Your task to perform on an android device: uninstall "PlayWell" Image 0: 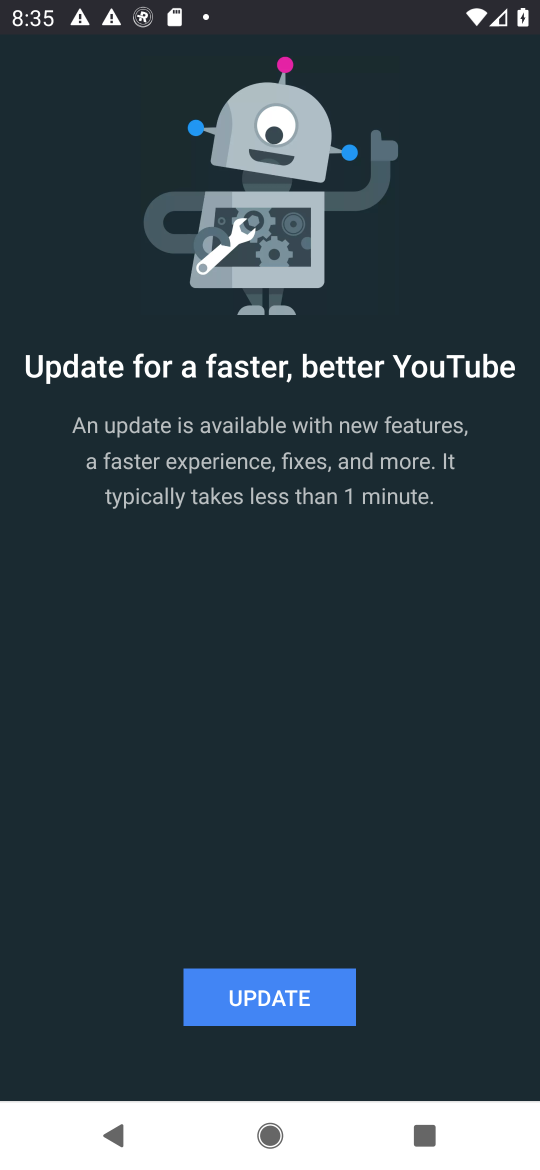
Step 0: press home button
Your task to perform on an android device: uninstall "PlayWell" Image 1: 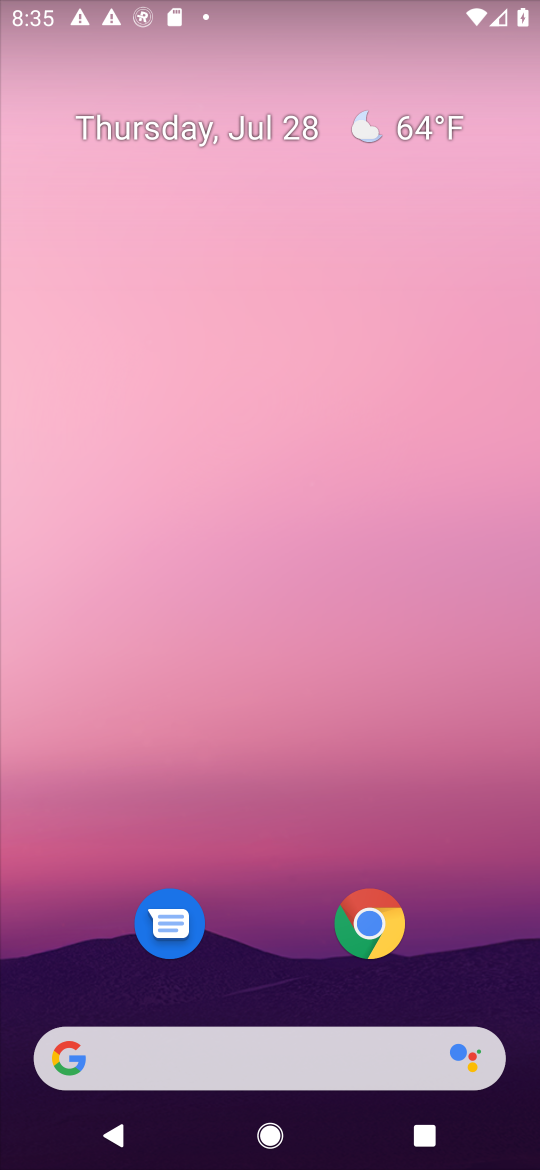
Step 1: drag from (446, 880) to (390, 203)
Your task to perform on an android device: uninstall "PlayWell" Image 2: 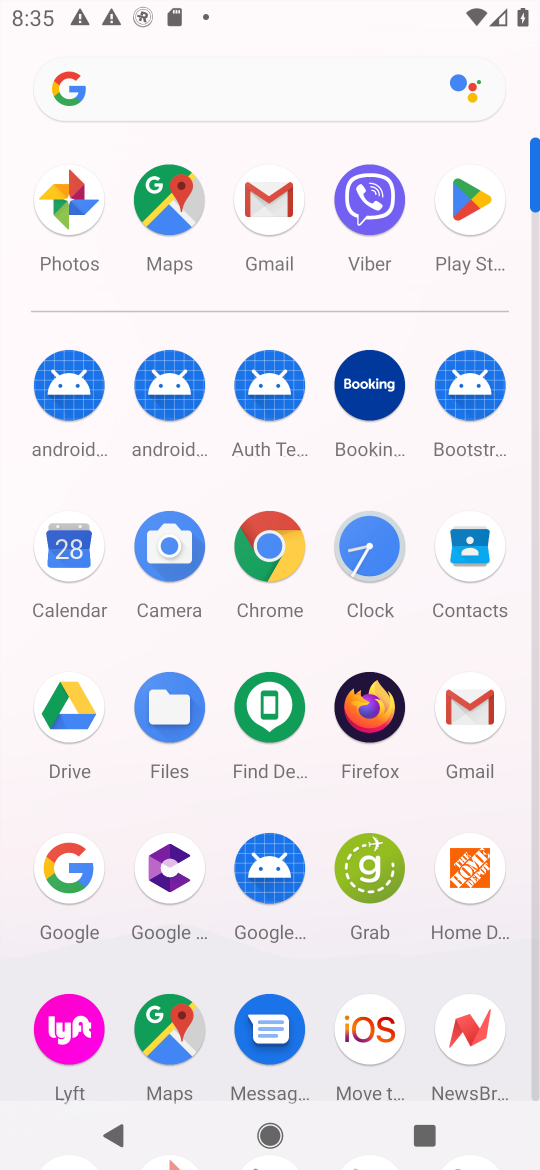
Step 2: click (476, 207)
Your task to perform on an android device: uninstall "PlayWell" Image 3: 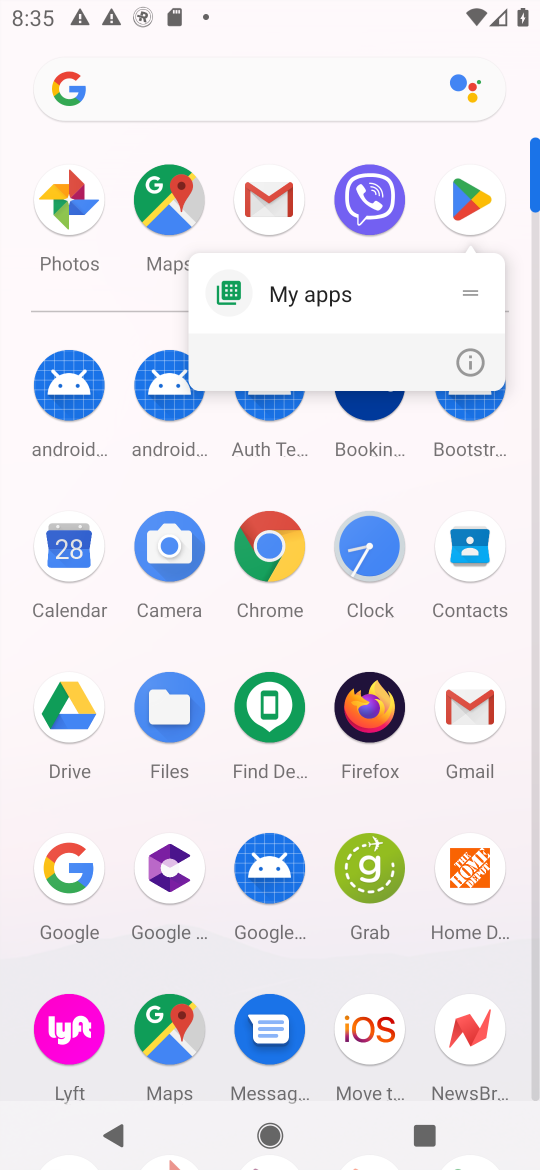
Step 3: click (476, 210)
Your task to perform on an android device: uninstall "PlayWell" Image 4: 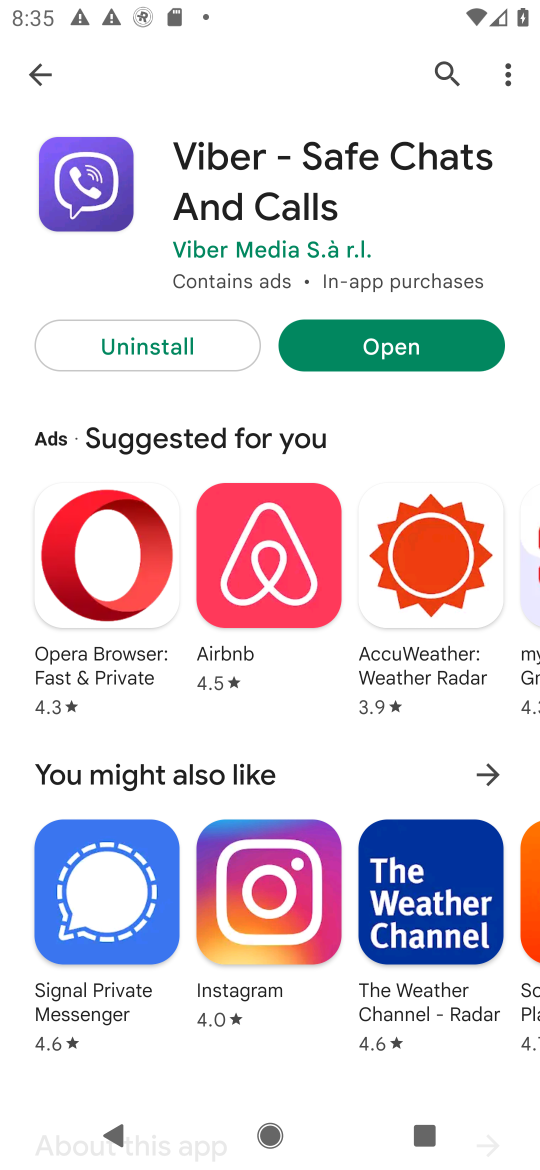
Step 4: click (464, 72)
Your task to perform on an android device: uninstall "PlayWell" Image 5: 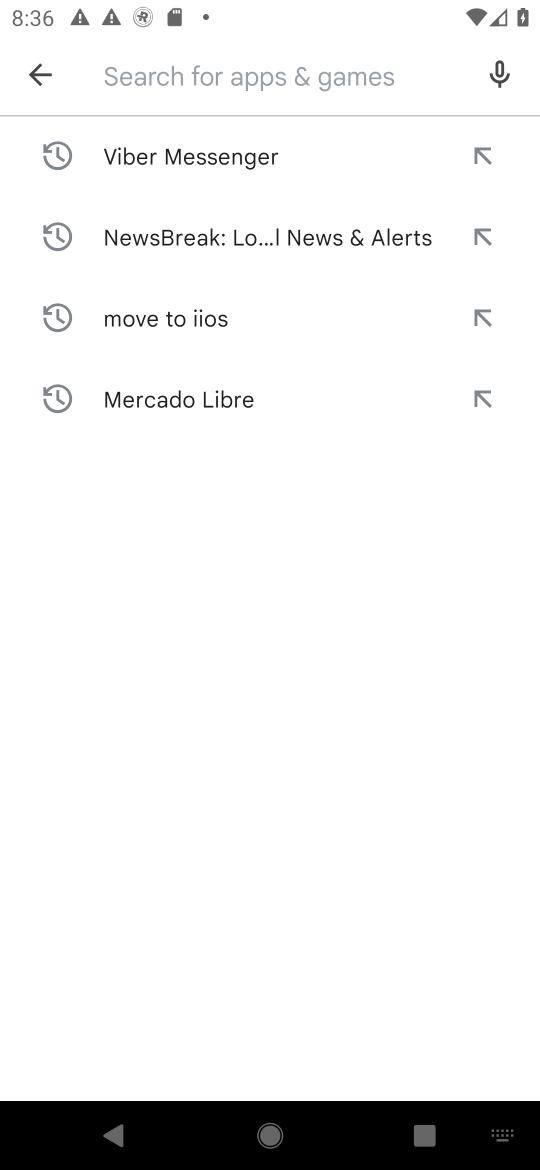
Step 5: type "PlayWell"
Your task to perform on an android device: uninstall "PlayWell" Image 6: 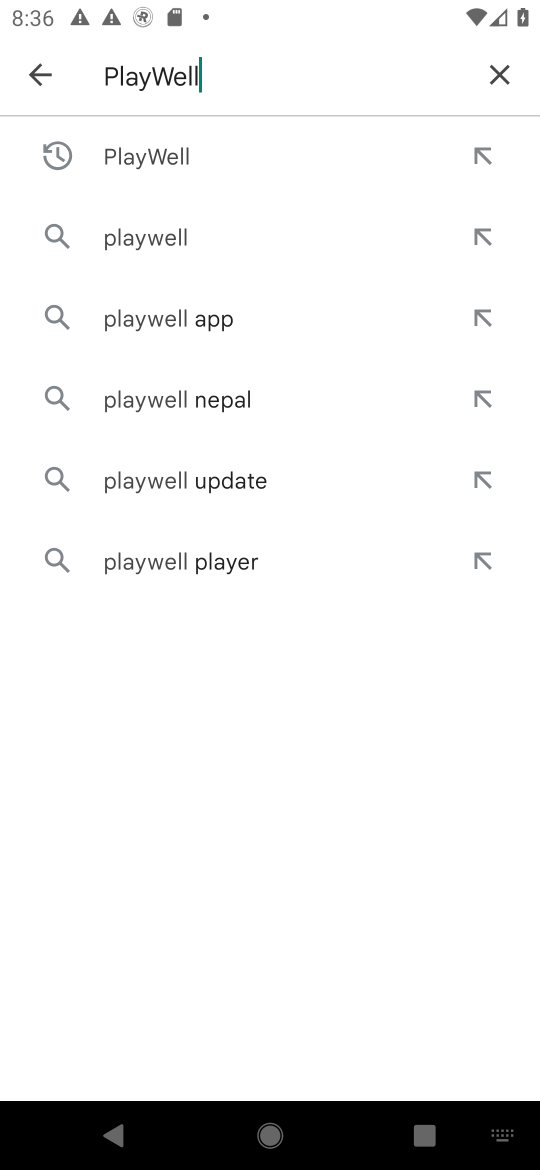
Step 6: press enter
Your task to perform on an android device: uninstall "PlayWell" Image 7: 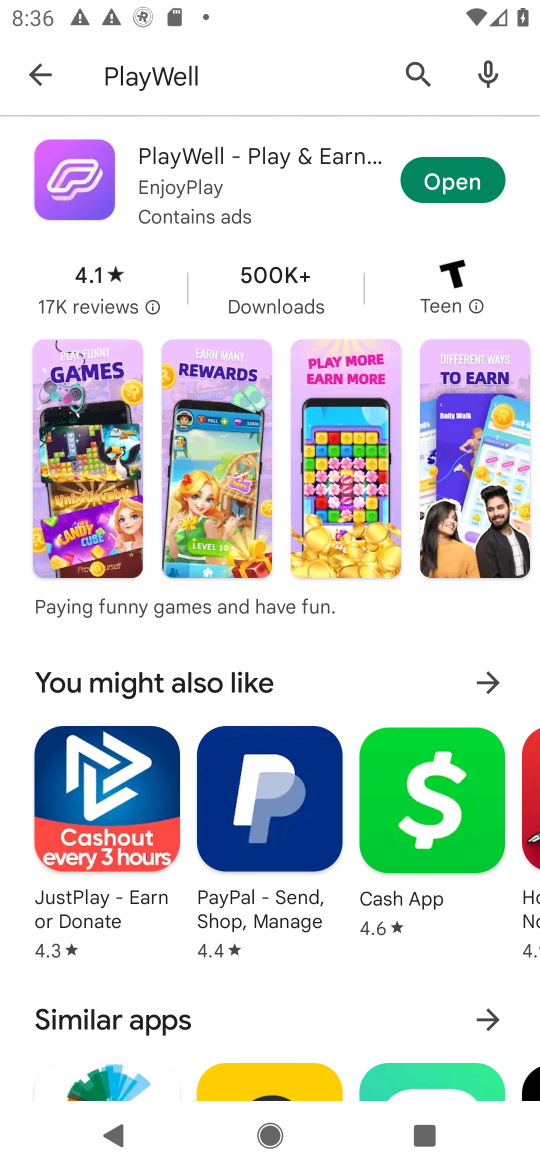
Step 7: click (245, 188)
Your task to perform on an android device: uninstall "PlayWell" Image 8: 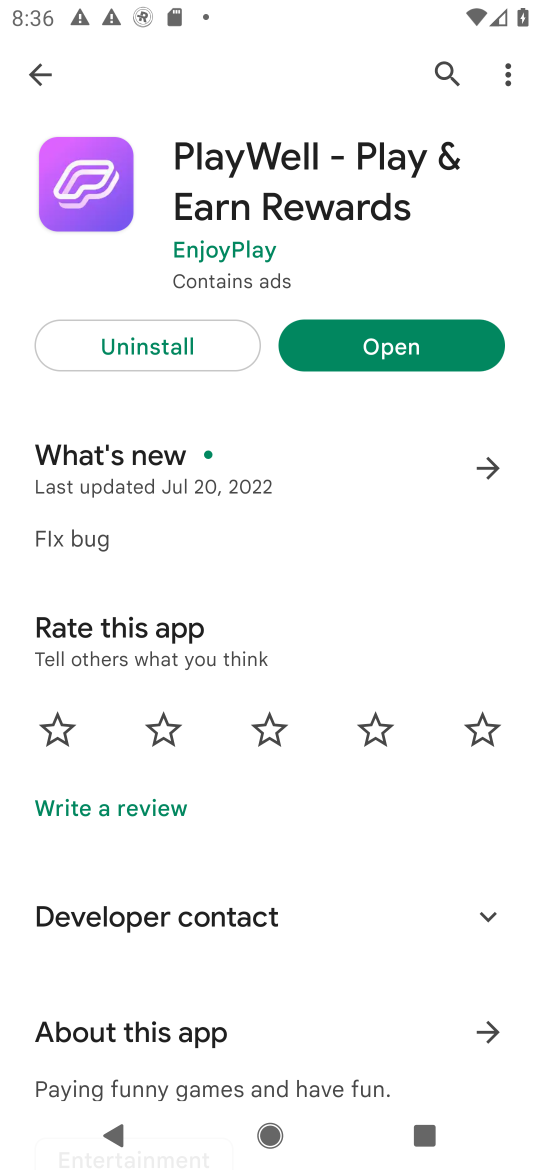
Step 8: click (135, 355)
Your task to perform on an android device: uninstall "PlayWell" Image 9: 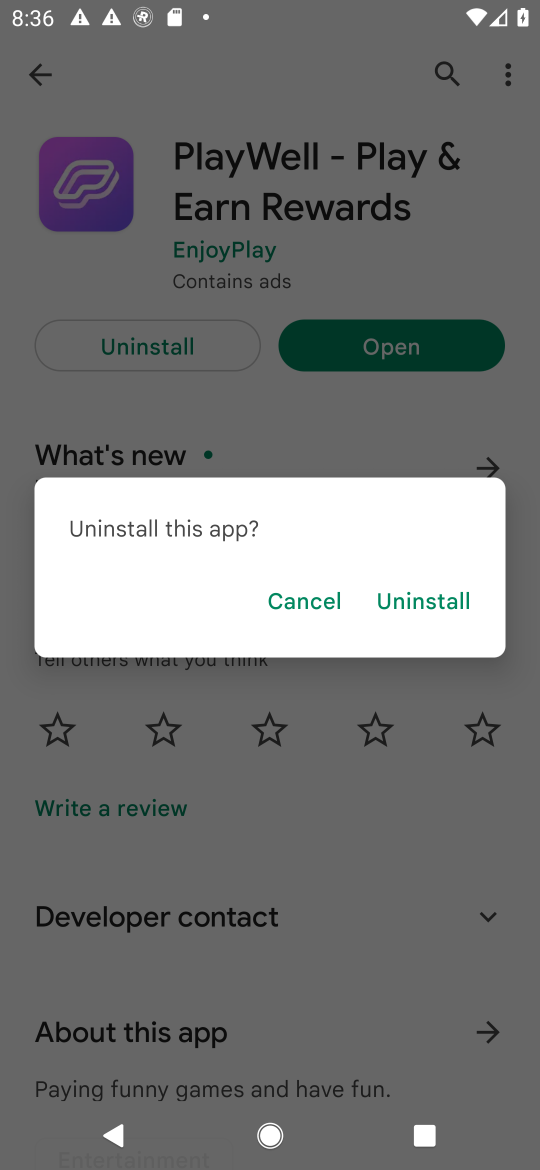
Step 9: click (458, 596)
Your task to perform on an android device: uninstall "PlayWell" Image 10: 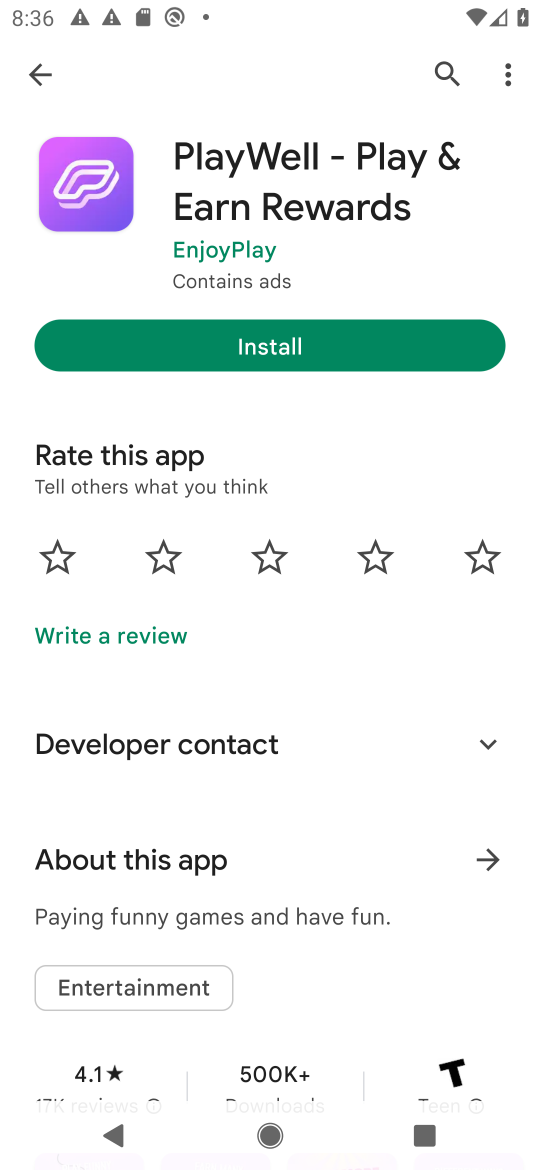
Step 10: task complete